Your task to perform on an android device: read, delete, or share a saved page in the chrome app Image 0: 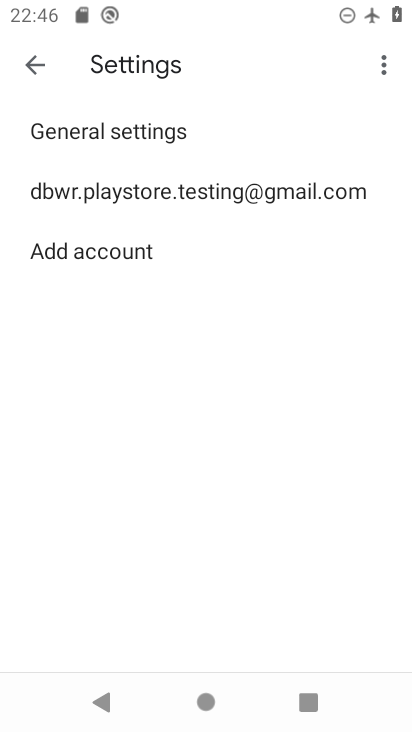
Step 0: press home button
Your task to perform on an android device: read, delete, or share a saved page in the chrome app Image 1: 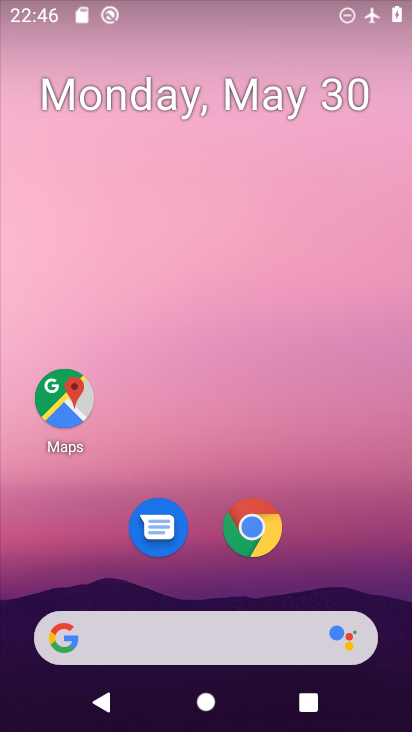
Step 1: drag from (327, 533) to (320, 199)
Your task to perform on an android device: read, delete, or share a saved page in the chrome app Image 2: 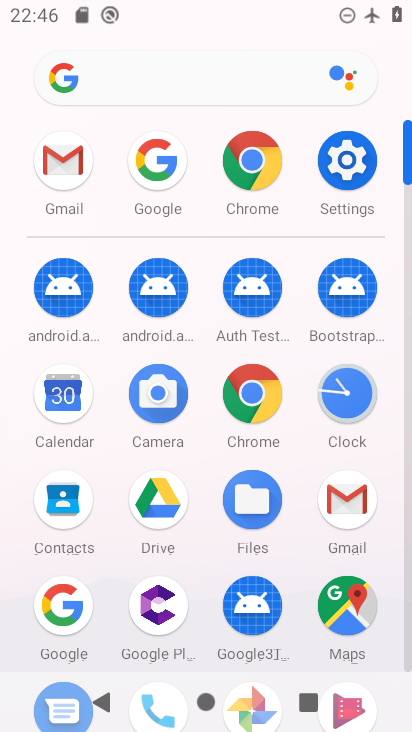
Step 2: click (260, 381)
Your task to perform on an android device: read, delete, or share a saved page in the chrome app Image 3: 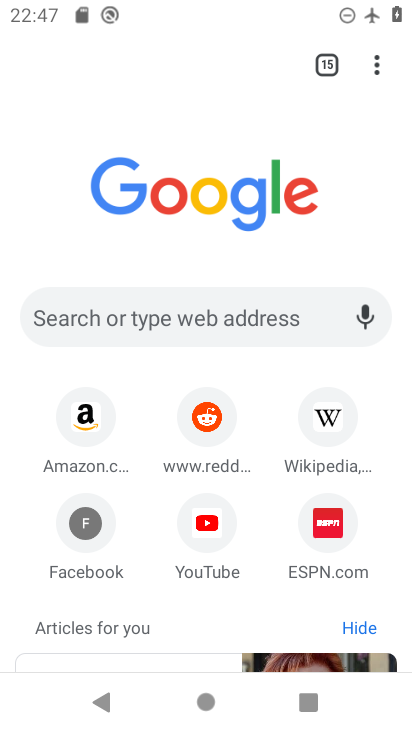
Step 3: click (383, 62)
Your task to perform on an android device: read, delete, or share a saved page in the chrome app Image 4: 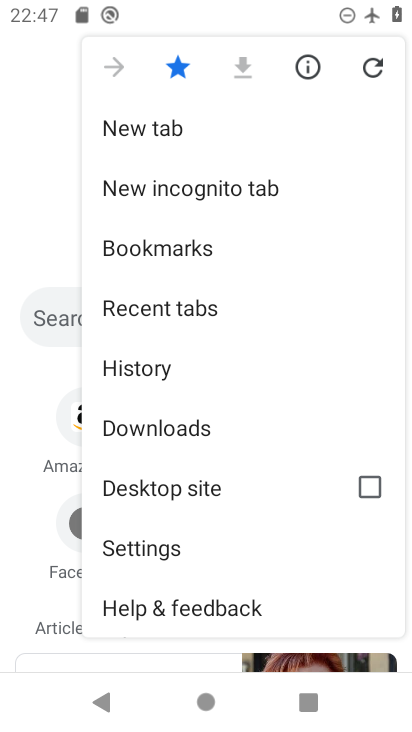
Step 4: drag from (197, 555) to (212, 215)
Your task to perform on an android device: read, delete, or share a saved page in the chrome app Image 5: 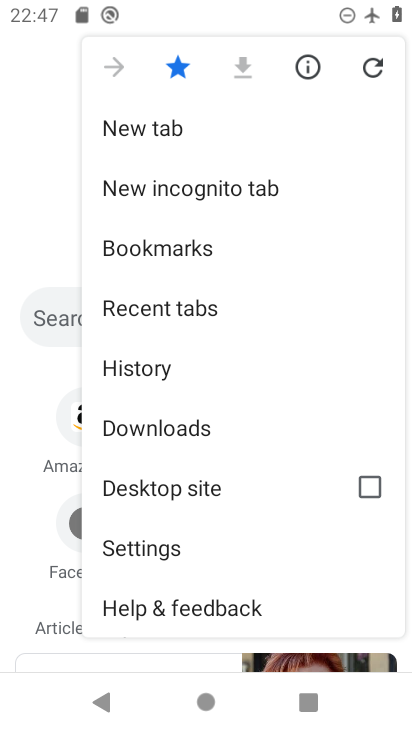
Step 5: click (184, 426)
Your task to perform on an android device: read, delete, or share a saved page in the chrome app Image 6: 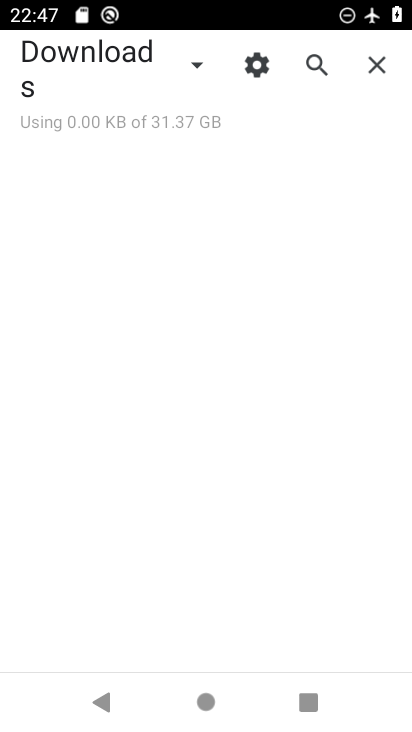
Step 6: click (195, 65)
Your task to perform on an android device: read, delete, or share a saved page in the chrome app Image 7: 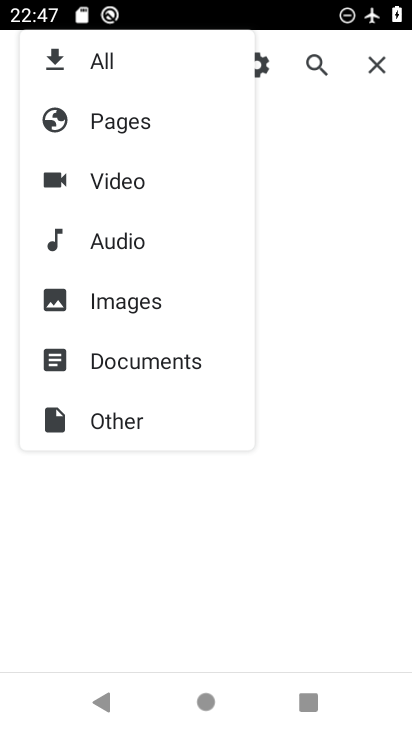
Step 7: click (132, 122)
Your task to perform on an android device: read, delete, or share a saved page in the chrome app Image 8: 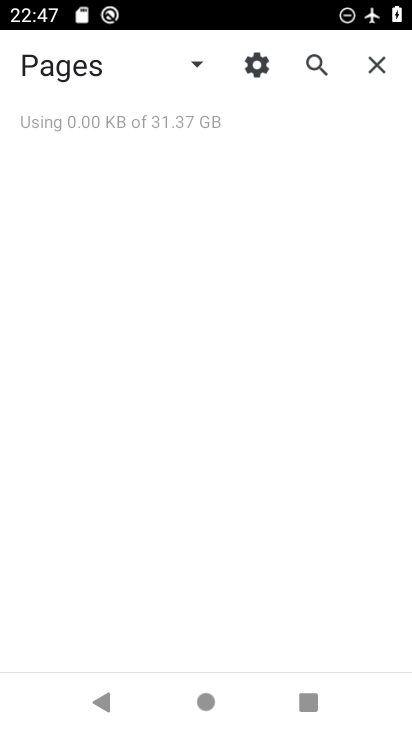
Step 8: task complete